Your task to perform on an android device: Clear the cart on walmart.com. Add "corsair k70" to the cart on walmart.com Image 0: 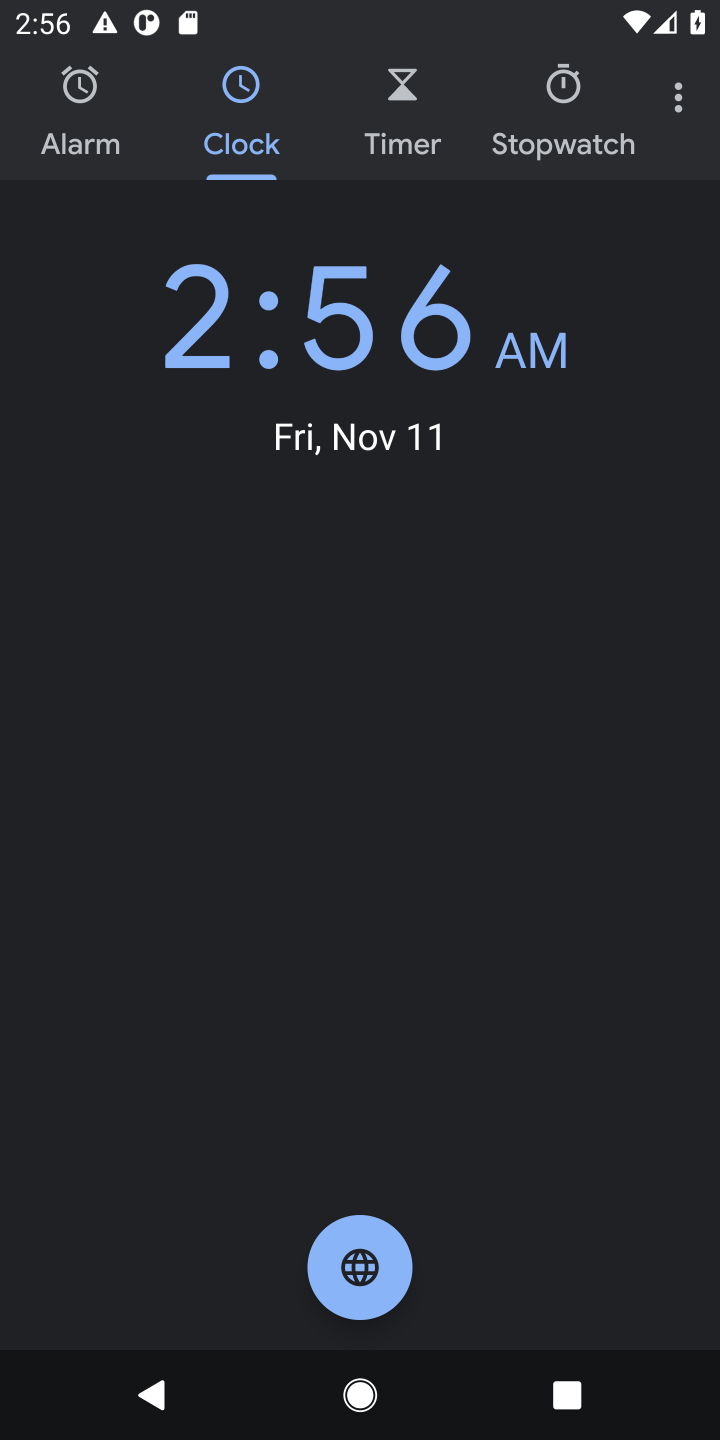
Step 0: press home button
Your task to perform on an android device: Clear the cart on walmart.com. Add "corsair k70" to the cart on walmart.com Image 1: 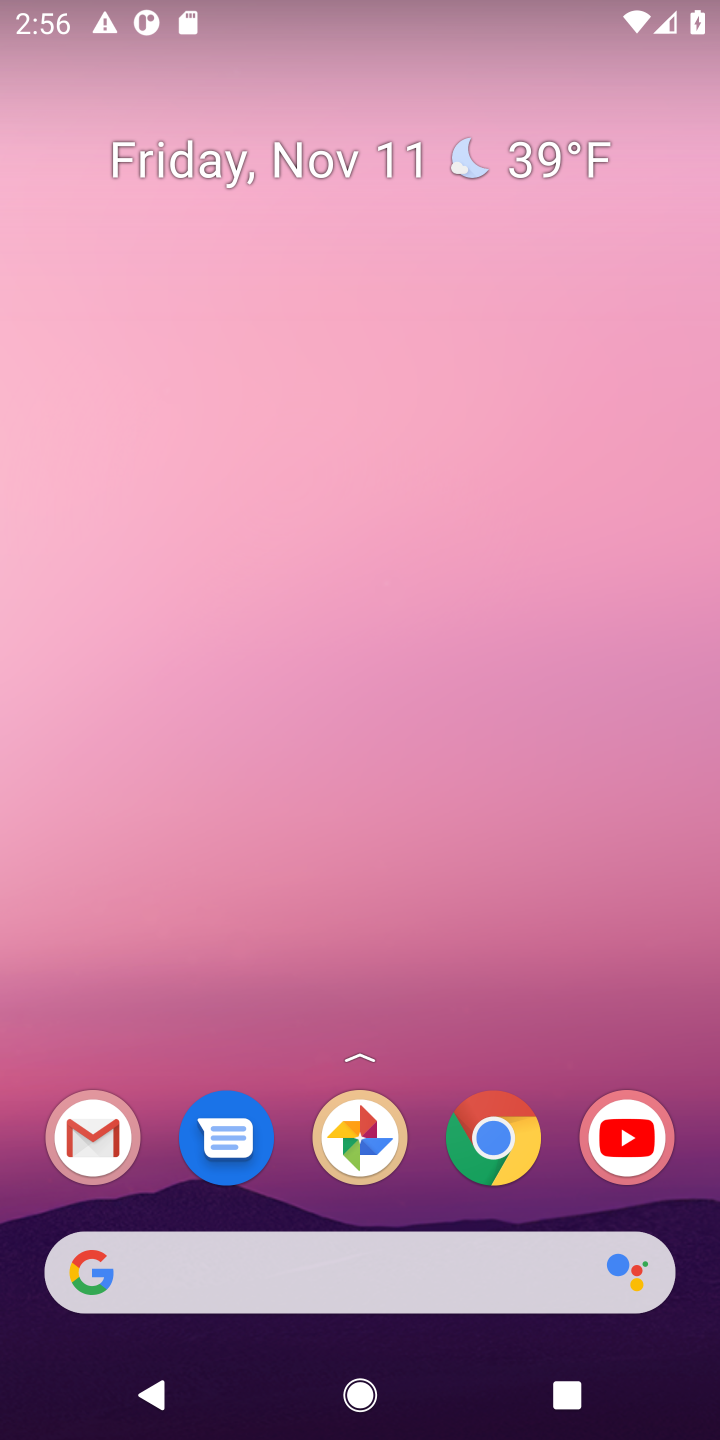
Step 1: click (489, 1130)
Your task to perform on an android device: Clear the cart on walmart.com. Add "corsair k70" to the cart on walmart.com Image 2: 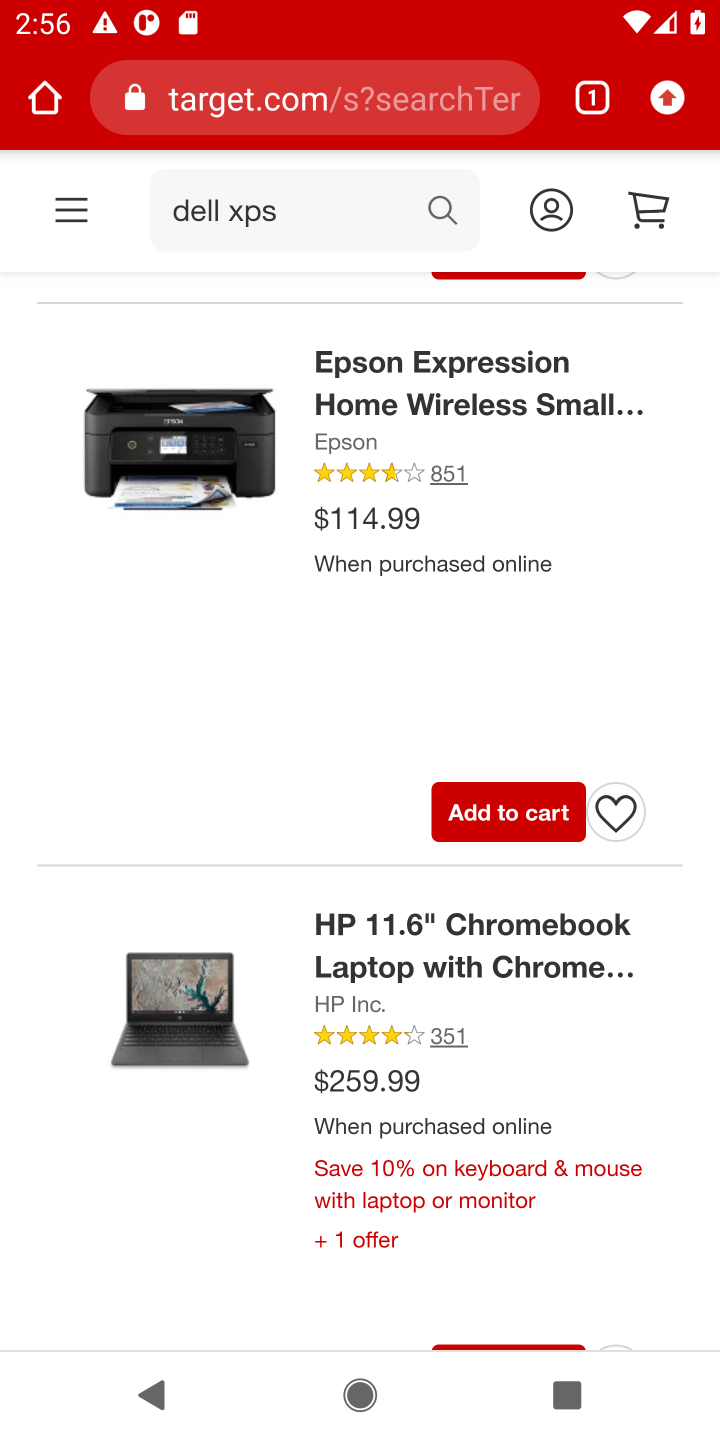
Step 2: click (435, 90)
Your task to perform on an android device: Clear the cart on walmart.com. Add "corsair k70" to the cart on walmart.com Image 3: 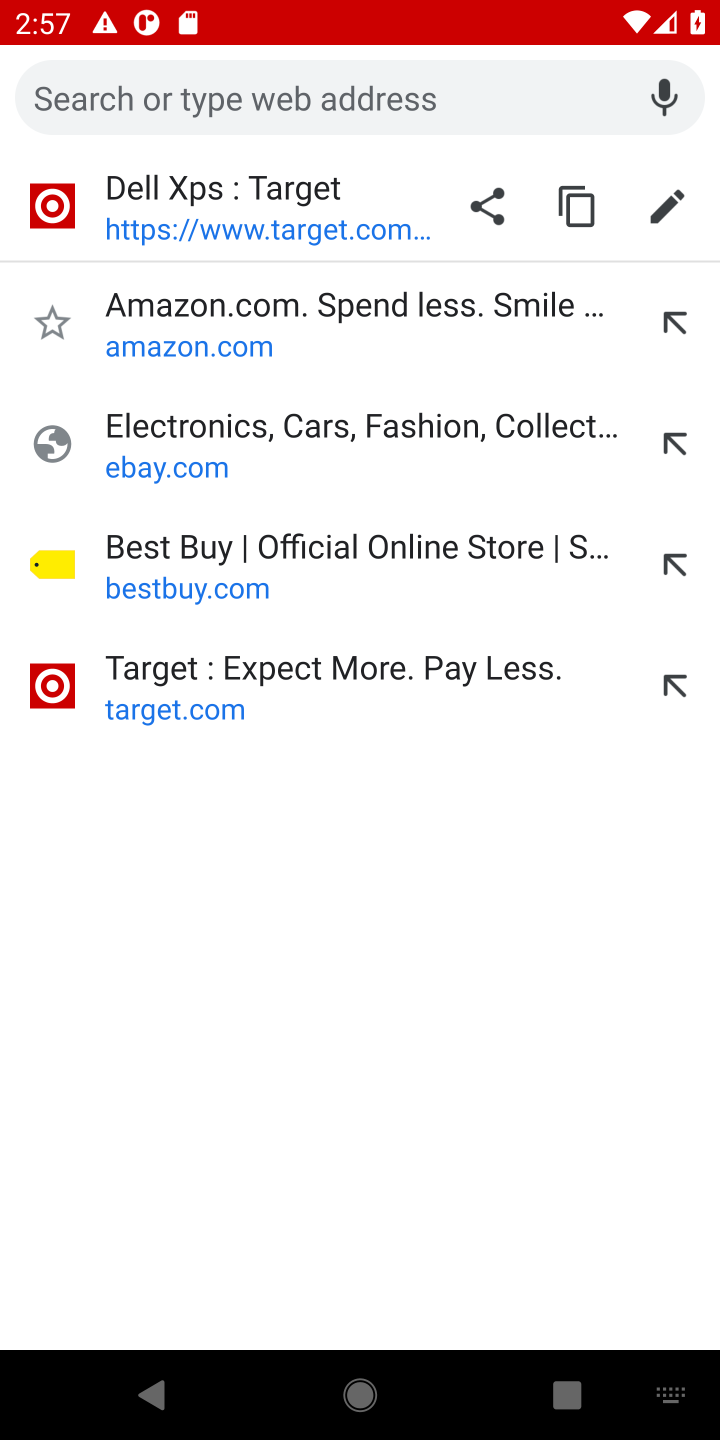
Step 3: type "walmart.com"
Your task to perform on an android device: Clear the cart on walmart.com. Add "corsair k70" to the cart on walmart.com Image 4: 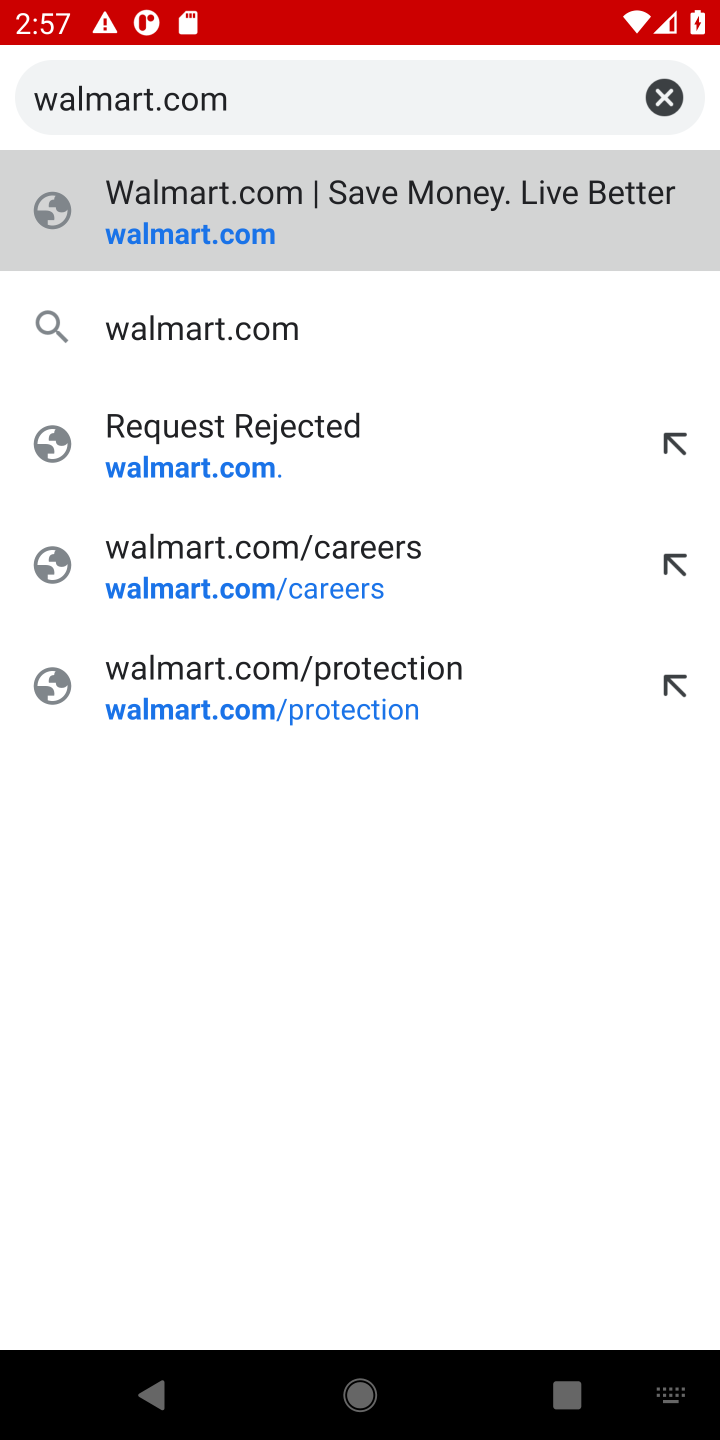
Step 4: press enter
Your task to perform on an android device: Clear the cart on walmart.com. Add "corsair k70" to the cart on walmart.com Image 5: 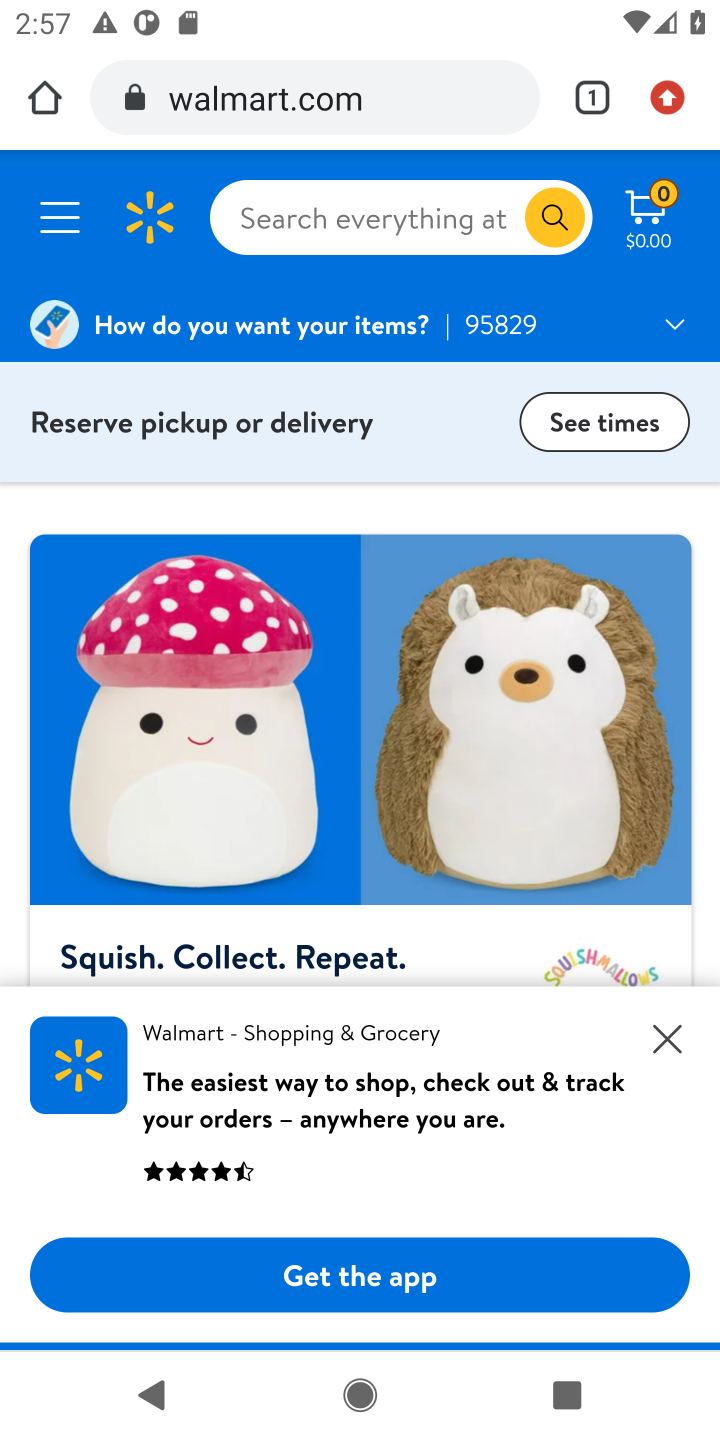
Step 5: click (359, 221)
Your task to perform on an android device: Clear the cart on walmart.com. Add "corsair k70" to the cart on walmart.com Image 6: 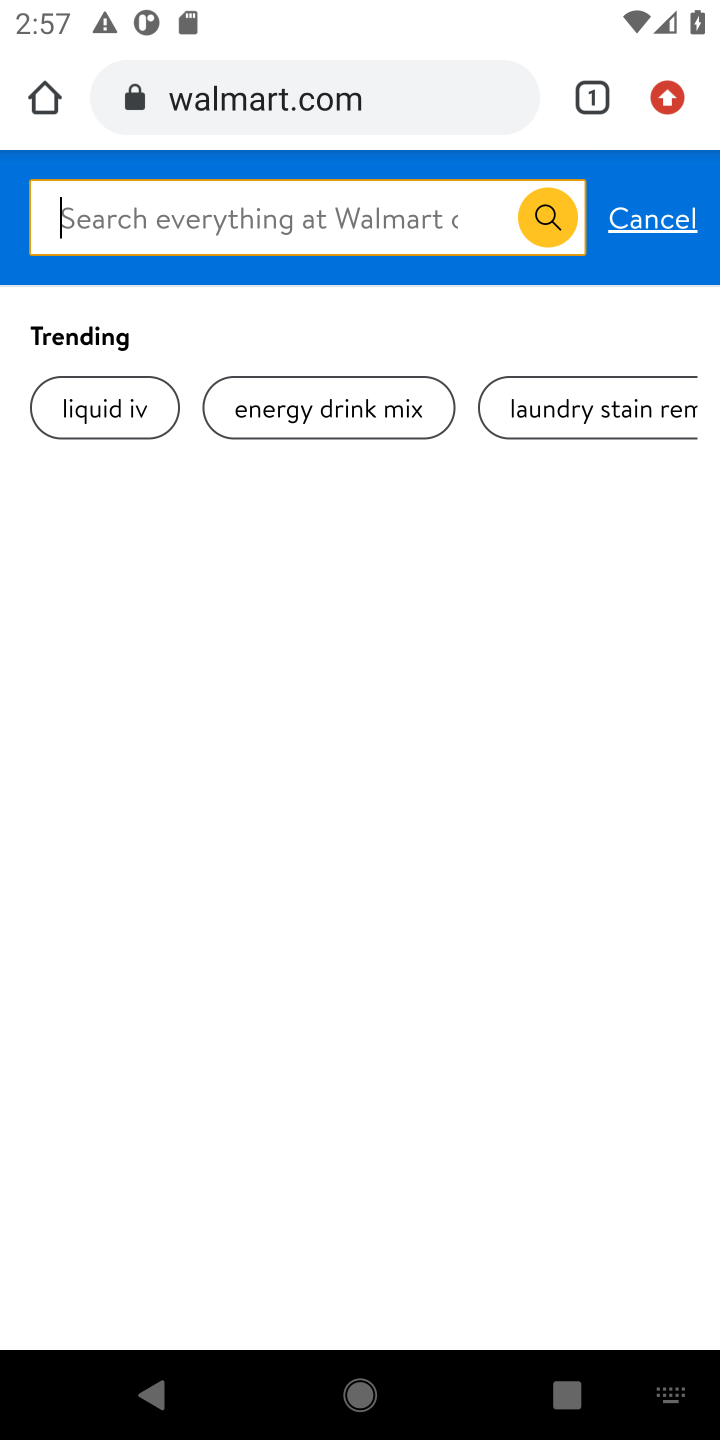
Step 6: type "corsair k70"
Your task to perform on an android device: Clear the cart on walmart.com. Add "corsair k70" to the cart on walmart.com Image 7: 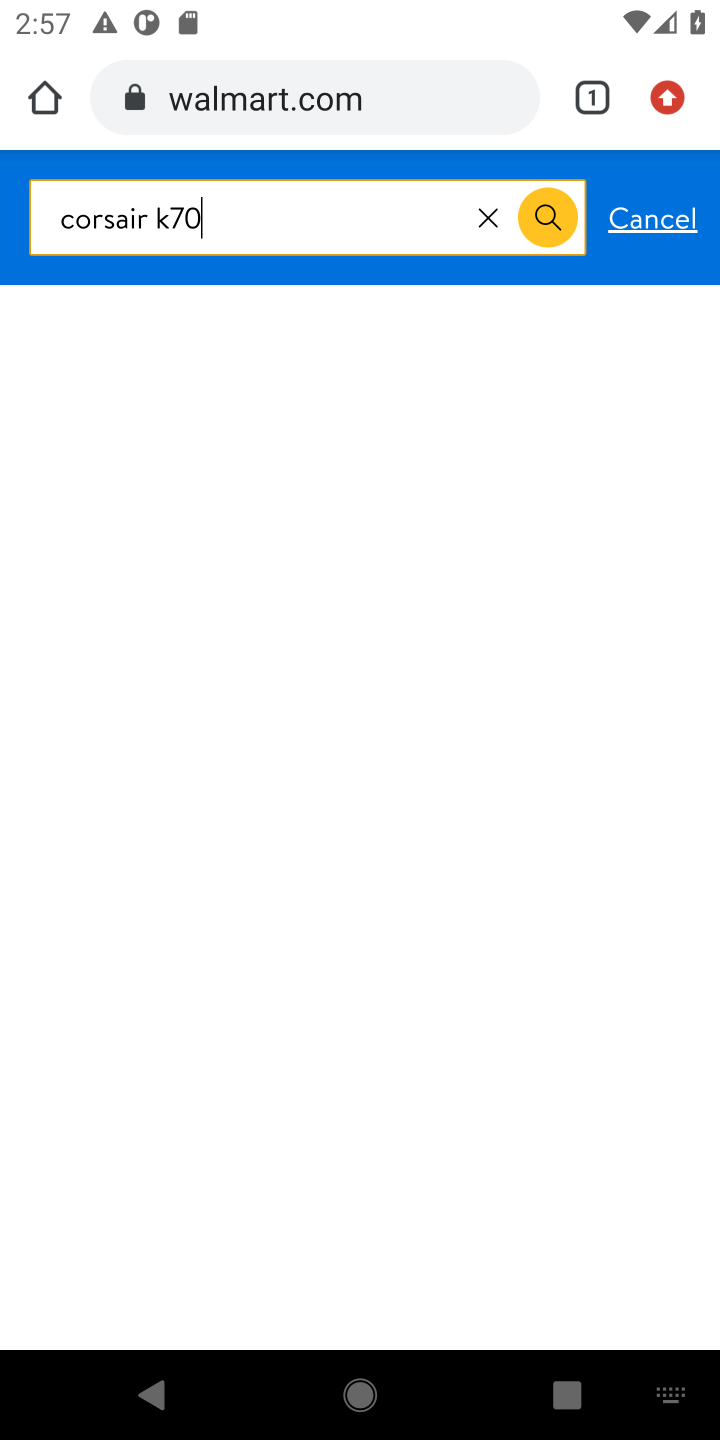
Step 7: press enter
Your task to perform on an android device: Clear the cart on walmart.com. Add "corsair k70" to the cart on walmart.com Image 8: 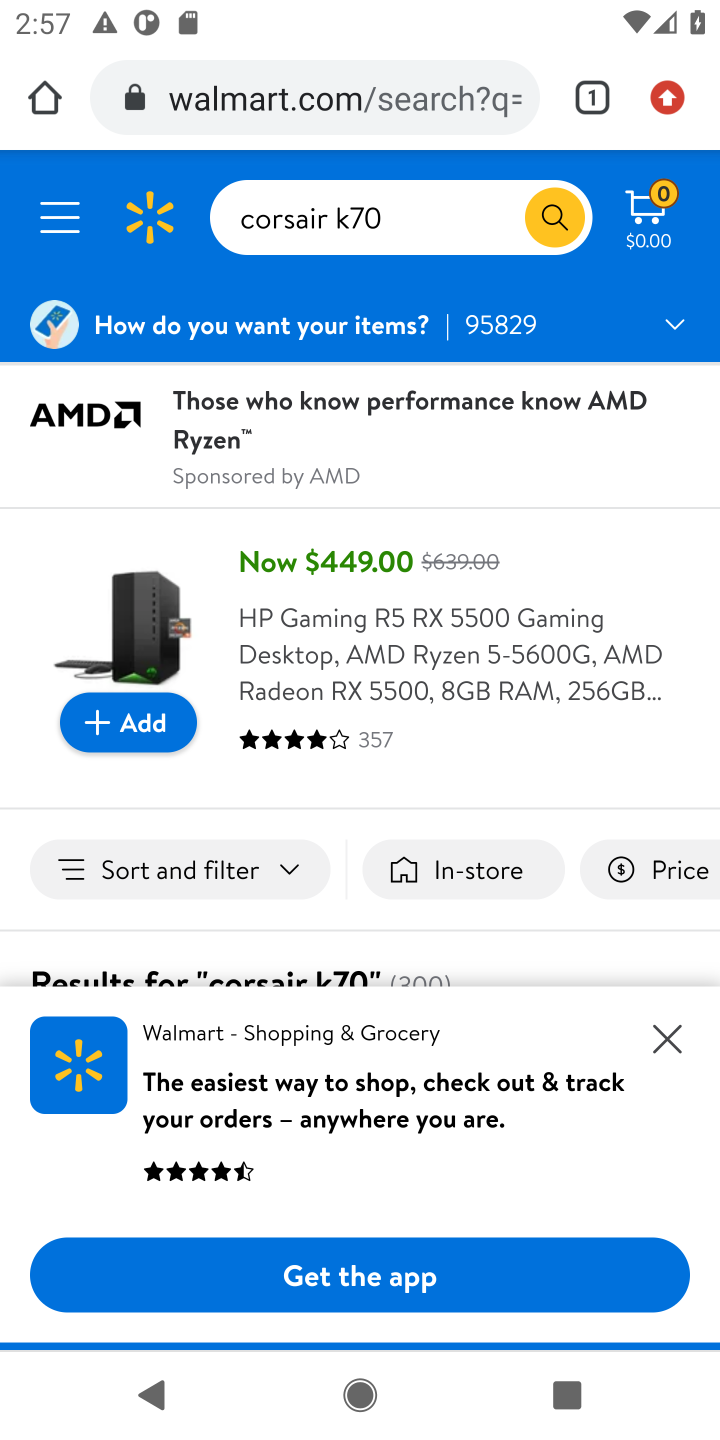
Step 8: click (677, 1050)
Your task to perform on an android device: Clear the cart on walmart.com. Add "corsair k70" to the cart on walmart.com Image 9: 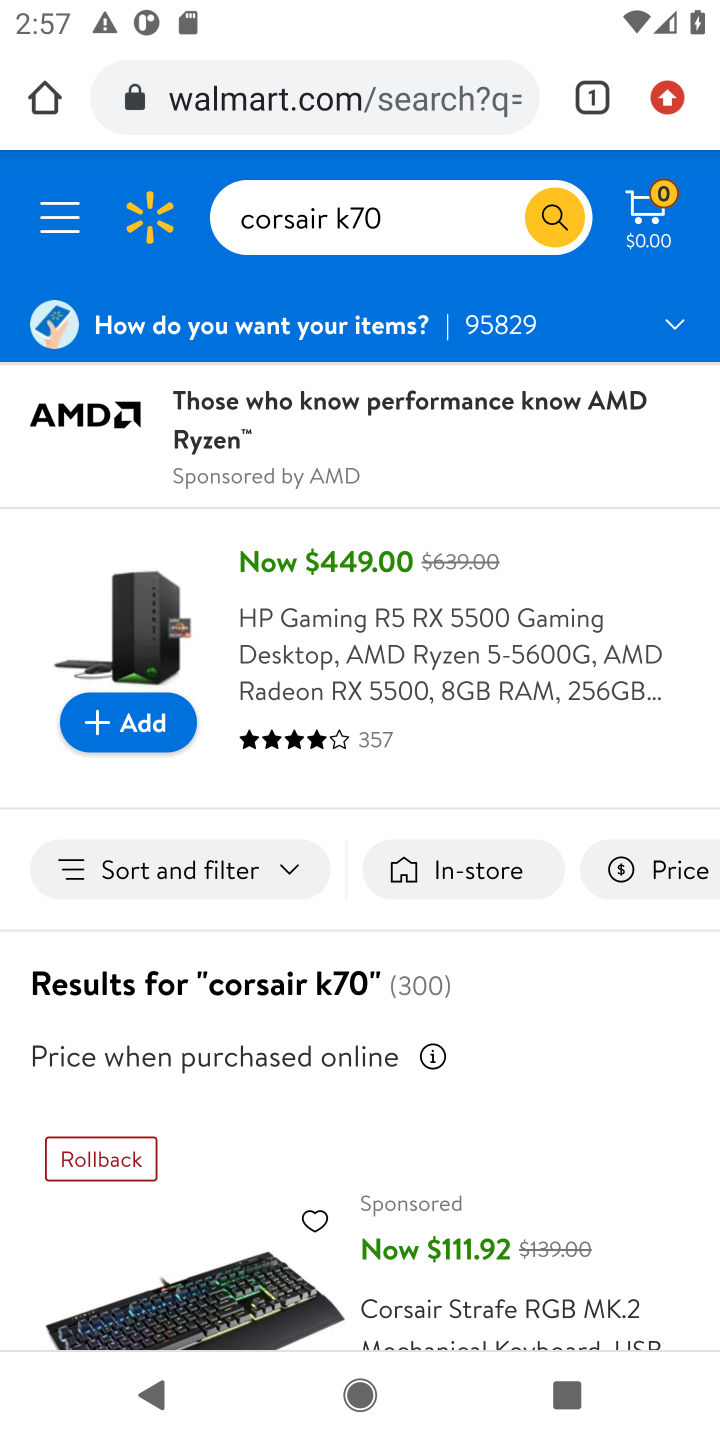
Step 9: drag from (630, 1280) to (654, 843)
Your task to perform on an android device: Clear the cart on walmart.com. Add "corsair k70" to the cart on walmart.com Image 10: 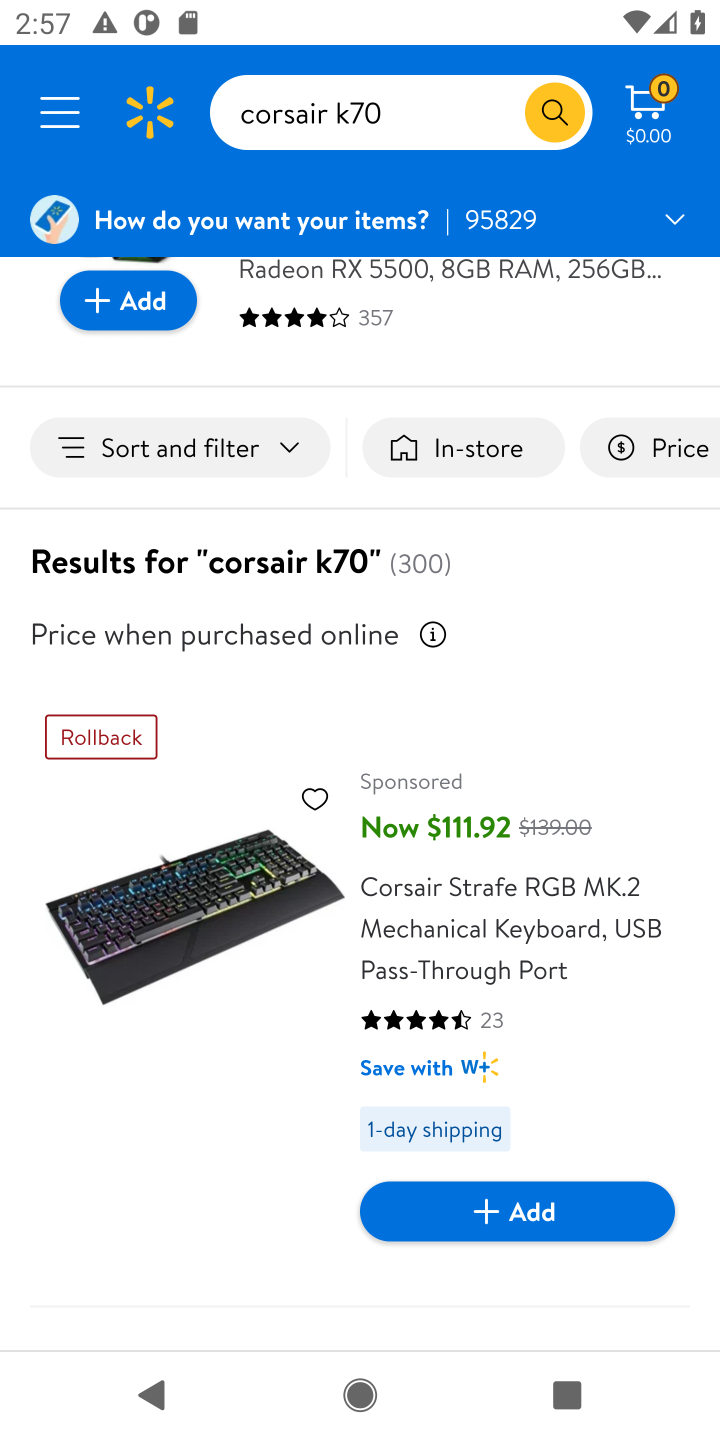
Step 10: drag from (622, 944) to (645, 446)
Your task to perform on an android device: Clear the cart on walmart.com. Add "corsair k70" to the cart on walmart.com Image 11: 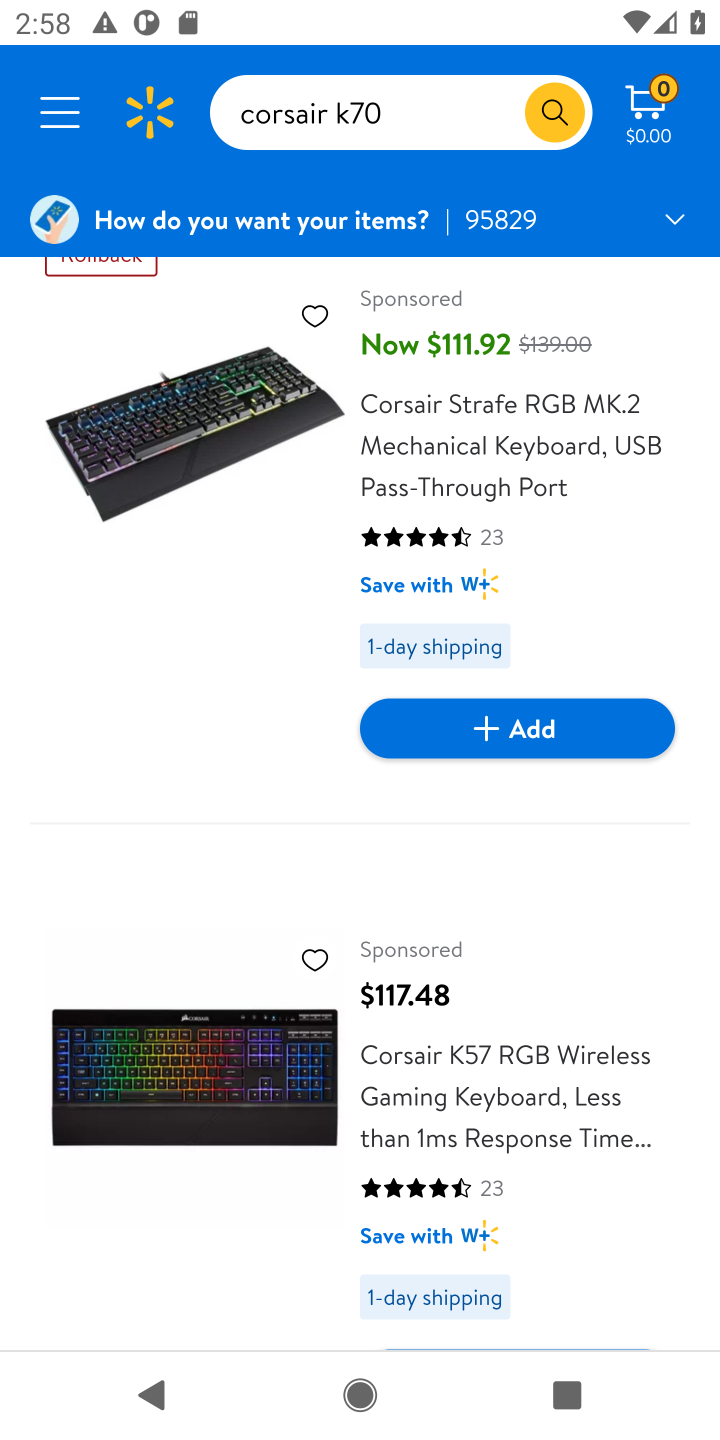
Step 11: drag from (617, 1081) to (572, 733)
Your task to perform on an android device: Clear the cart on walmart.com. Add "corsair k70" to the cart on walmart.com Image 12: 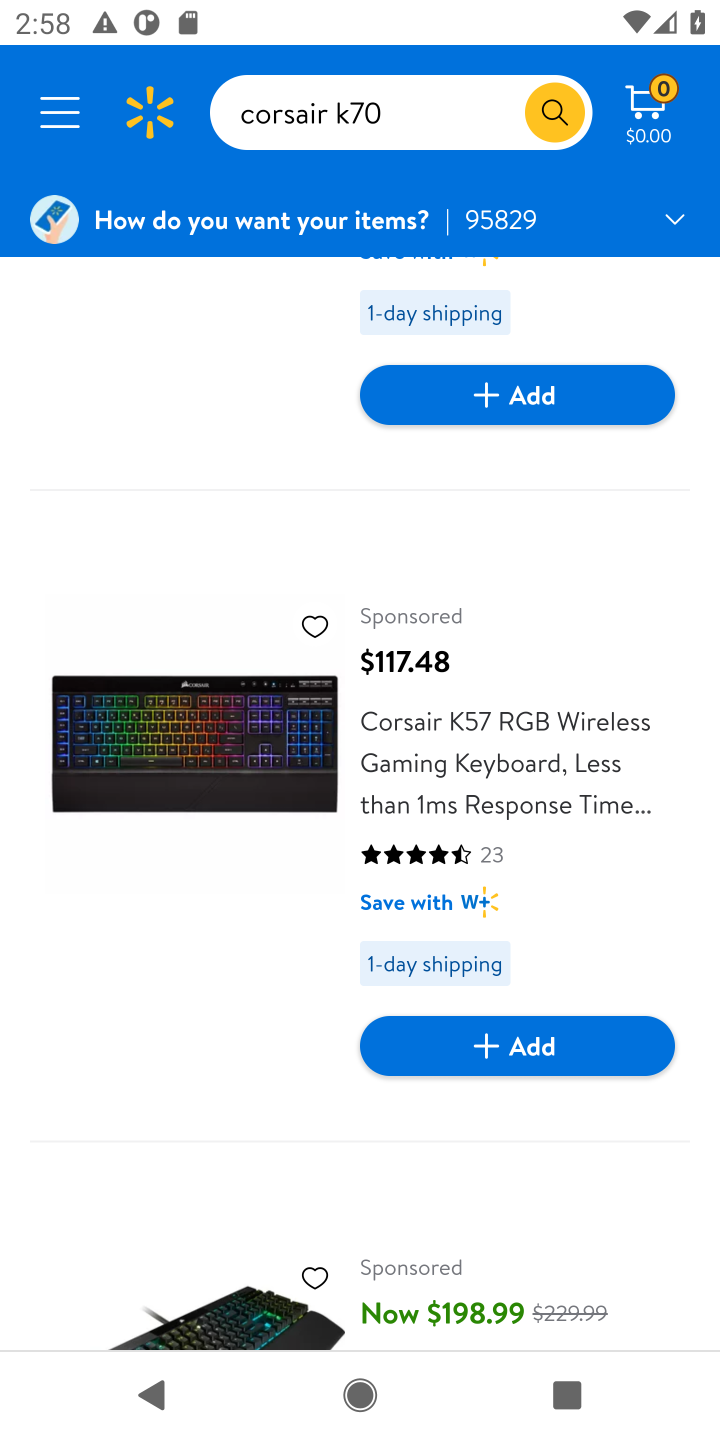
Step 12: drag from (664, 1245) to (571, 698)
Your task to perform on an android device: Clear the cart on walmart.com. Add "corsair k70" to the cart on walmart.com Image 13: 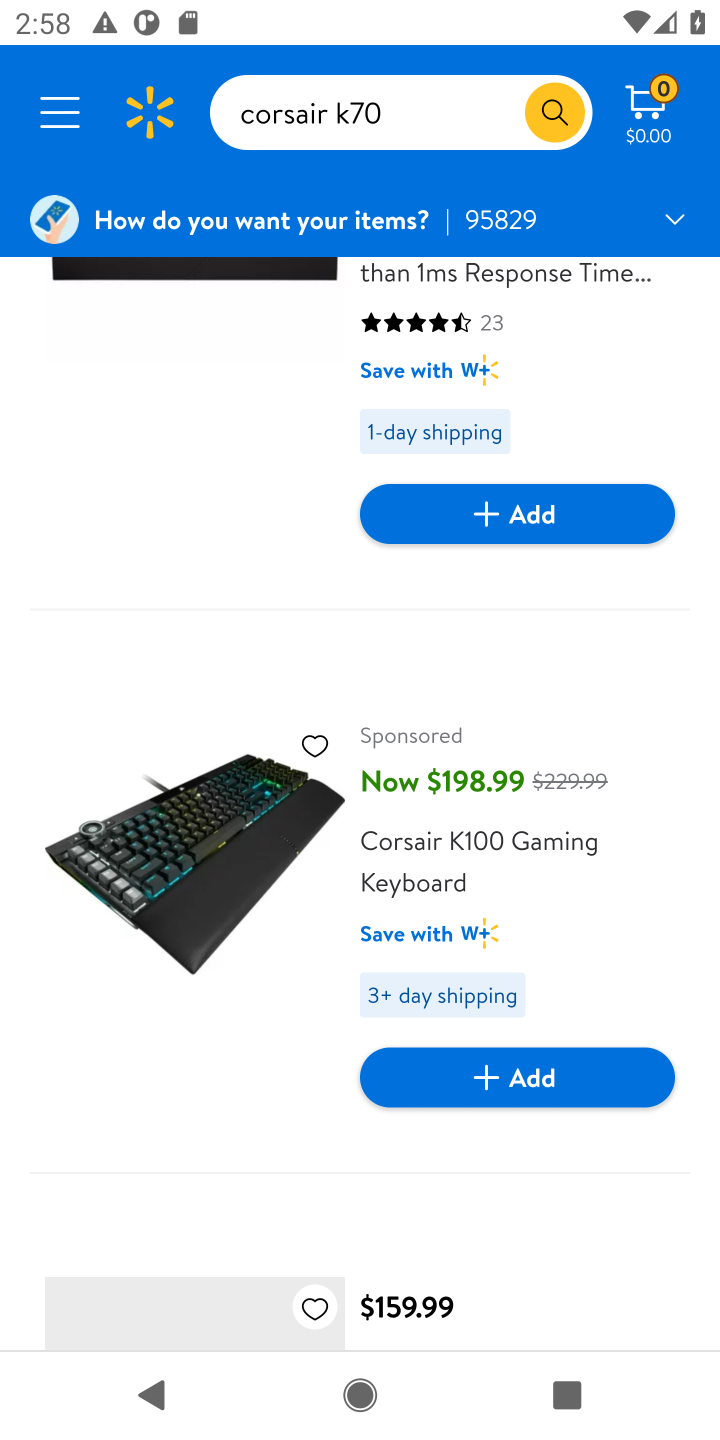
Step 13: drag from (655, 1229) to (641, 648)
Your task to perform on an android device: Clear the cart on walmart.com. Add "corsair k70" to the cart on walmart.com Image 14: 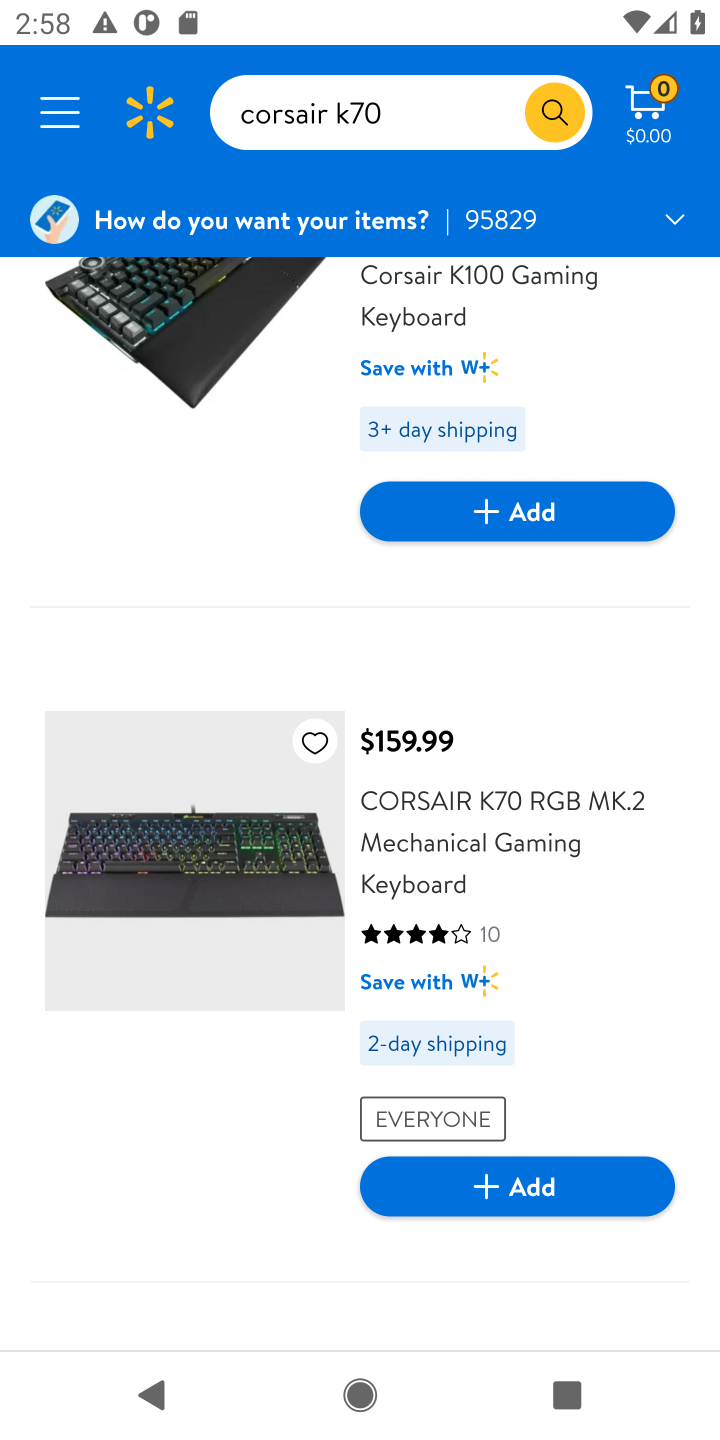
Step 14: click (255, 864)
Your task to perform on an android device: Clear the cart on walmart.com. Add "corsair k70" to the cart on walmart.com Image 15: 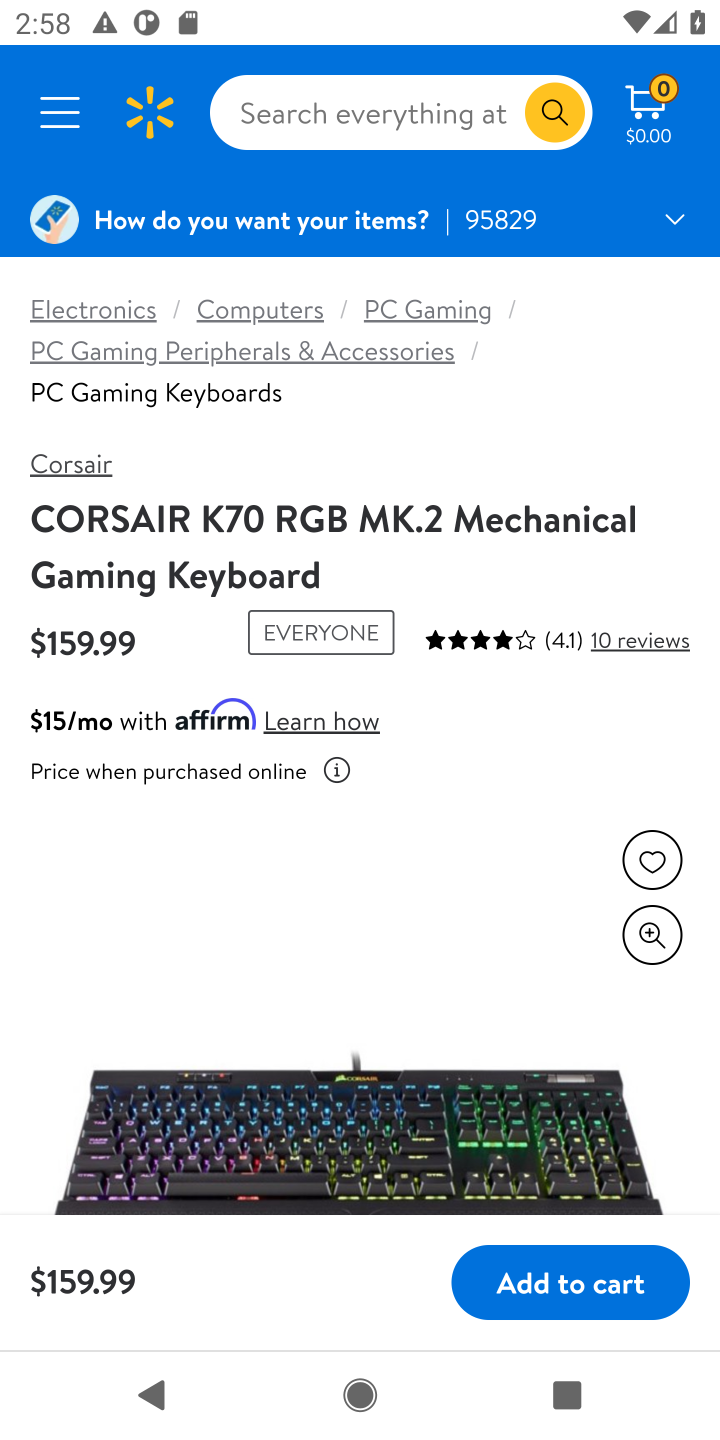
Step 15: click (608, 1281)
Your task to perform on an android device: Clear the cart on walmart.com. Add "corsair k70" to the cart on walmart.com Image 16: 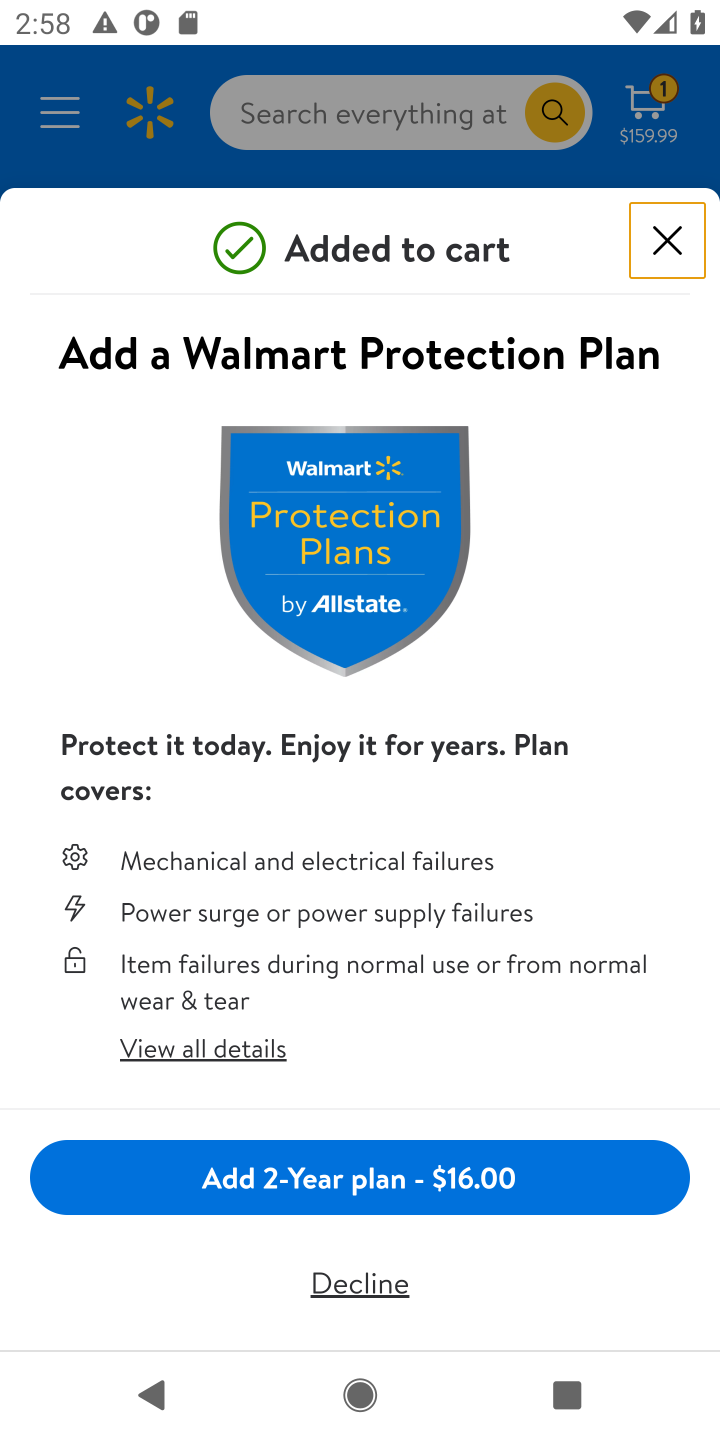
Step 16: task complete